Your task to perform on an android device: turn on improve location accuracy Image 0: 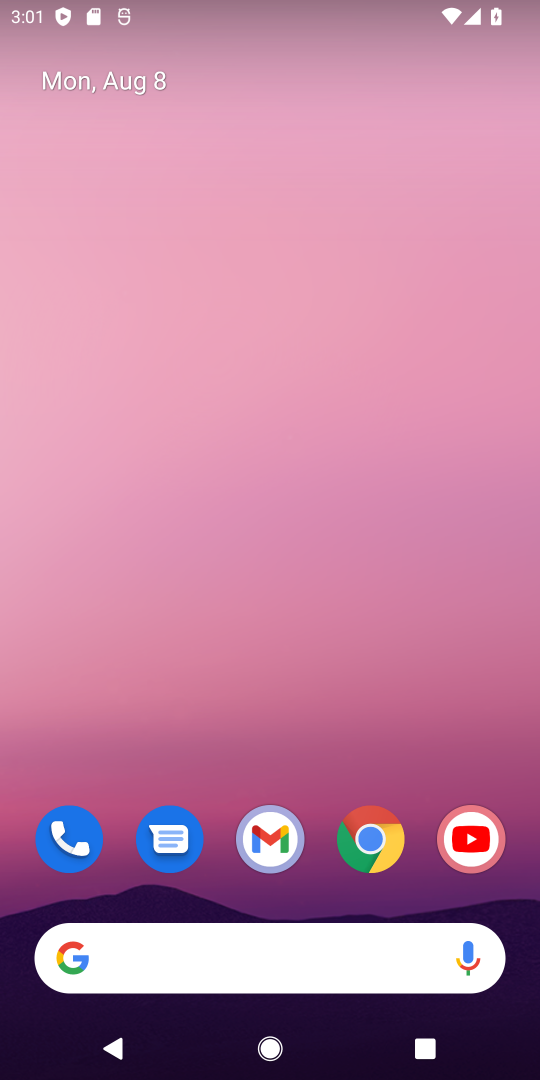
Step 0: drag from (255, 978) to (179, 58)
Your task to perform on an android device: turn on improve location accuracy Image 1: 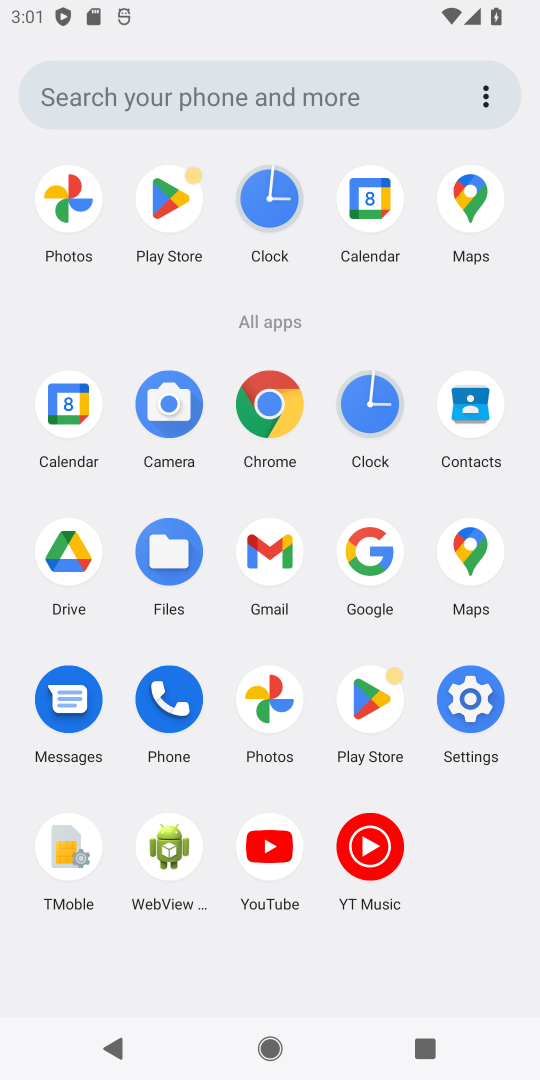
Step 1: click (494, 726)
Your task to perform on an android device: turn on improve location accuracy Image 2: 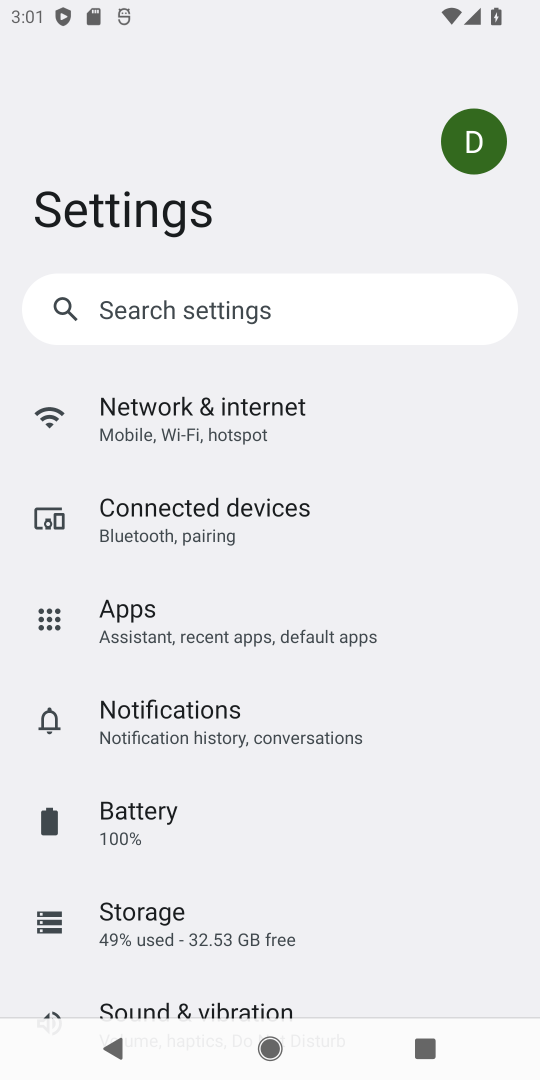
Step 2: drag from (104, 914) to (52, 165)
Your task to perform on an android device: turn on improve location accuracy Image 3: 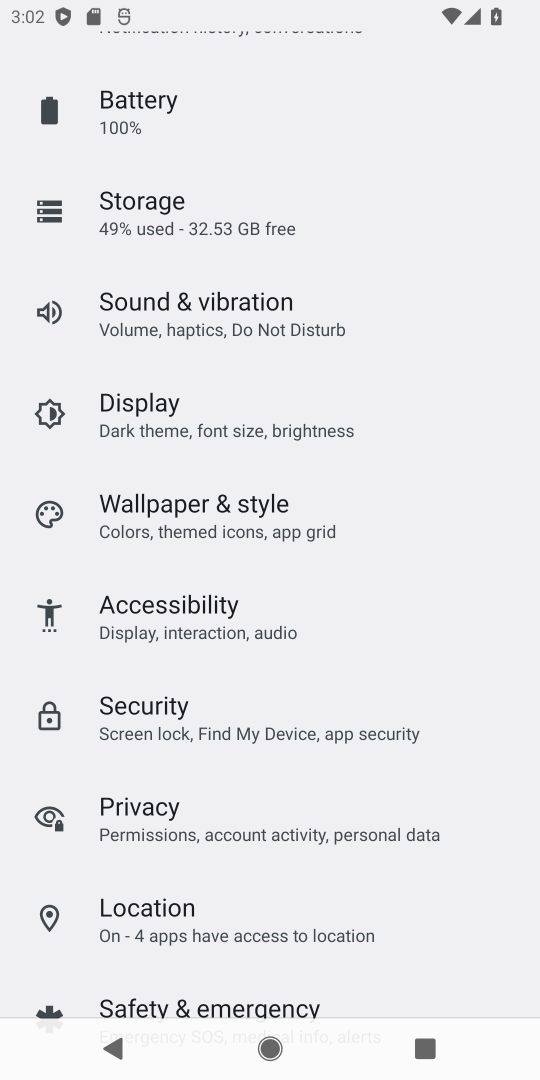
Step 3: drag from (204, 932) to (170, 246)
Your task to perform on an android device: turn on improve location accuracy Image 4: 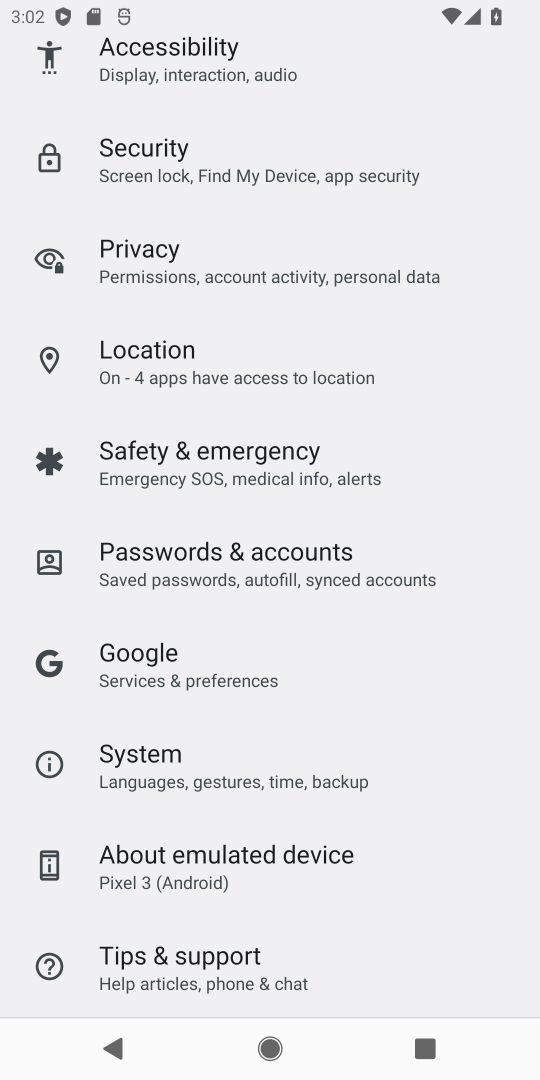
Step 4: click (156, 381)
Your task to perform on an android device: turn on improve location accuracy Image 5: 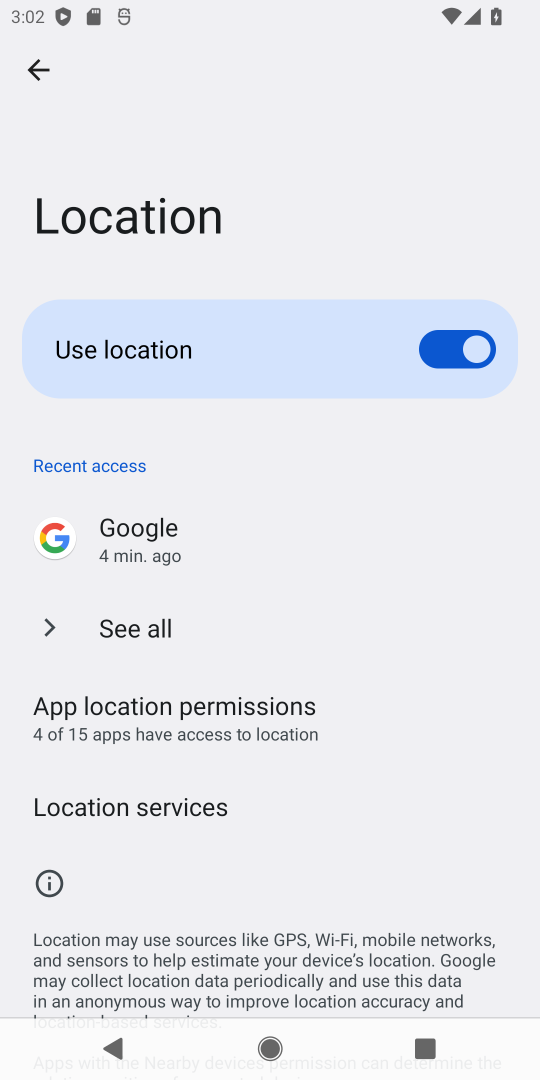
Step 5: click (150, 774)
Your task to perform on an android device: turn on improve location accuracy Image 6: 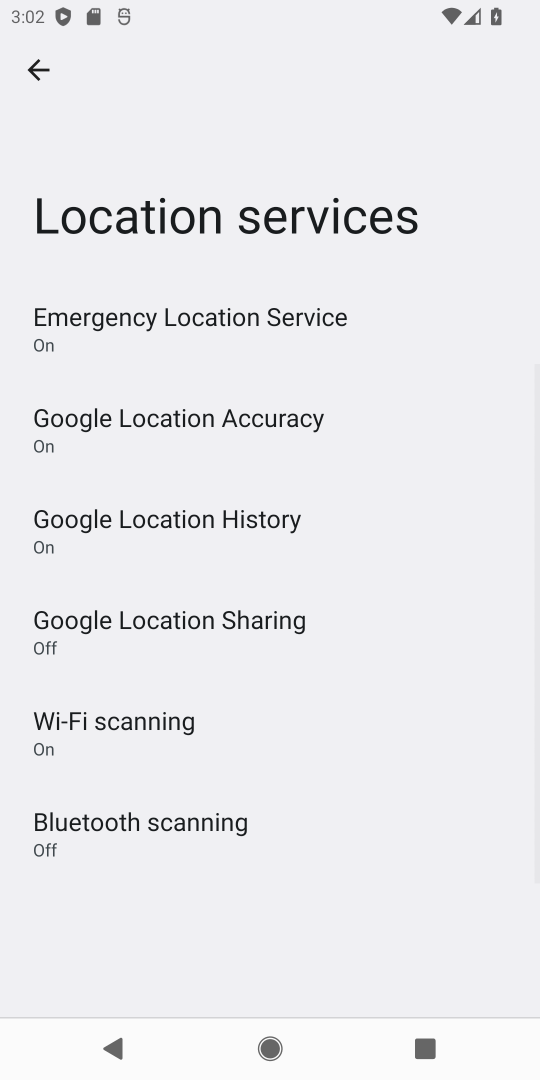
Step 6: click (155, 404)
Your task to perform on an android device: turn on improve location accuracy Image 7: 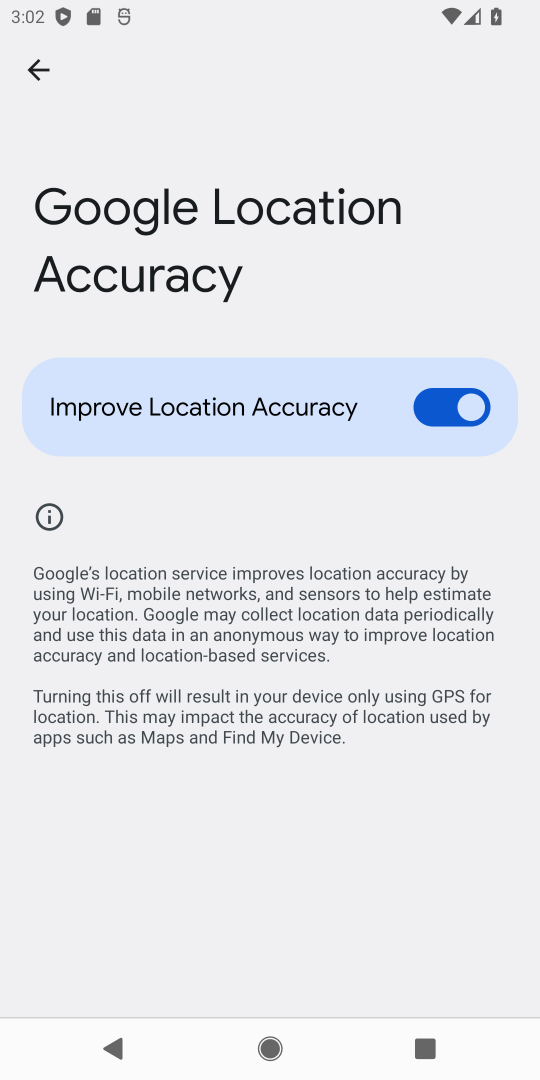
Step 7: task complete